Your task to perform on an android device: change the clock display to analog Image 0: 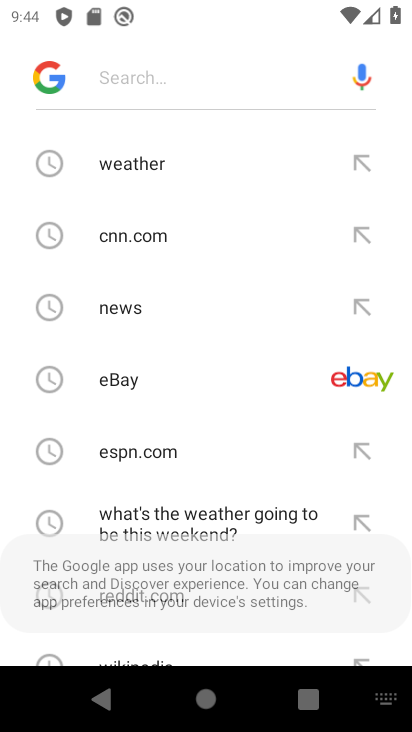
Step 0: press back button
Your task to perform on an android device: change the clock display to analog Image 1: 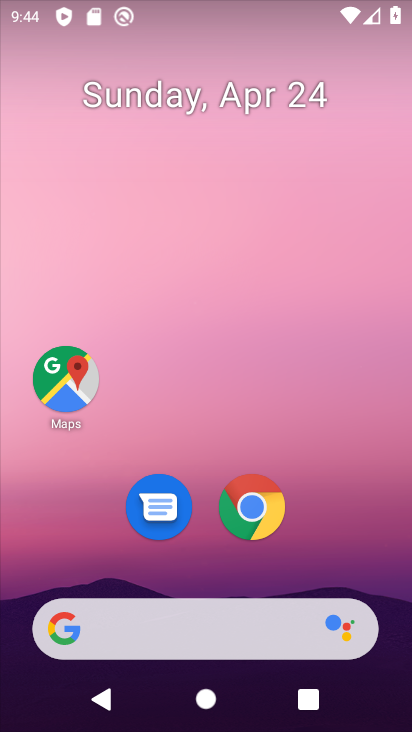
Step 1: drag from (187, 493) to (328, 94)
Your task to perform on an android device: change the clock display to analog Image 2: 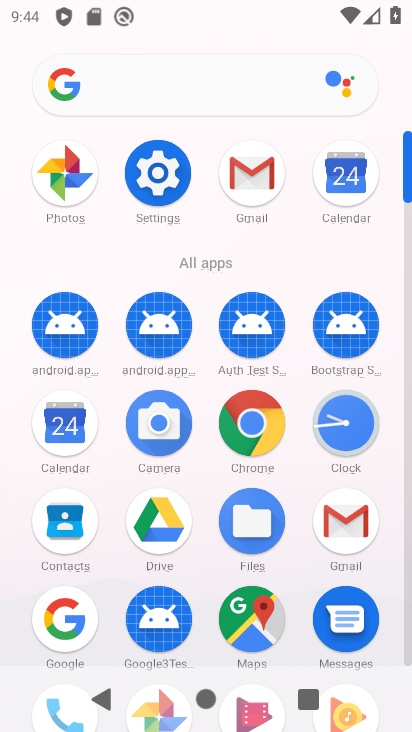
Step 2: click (340, 420)
Your task to perform on an android device: change the clock display to analog Image 3: 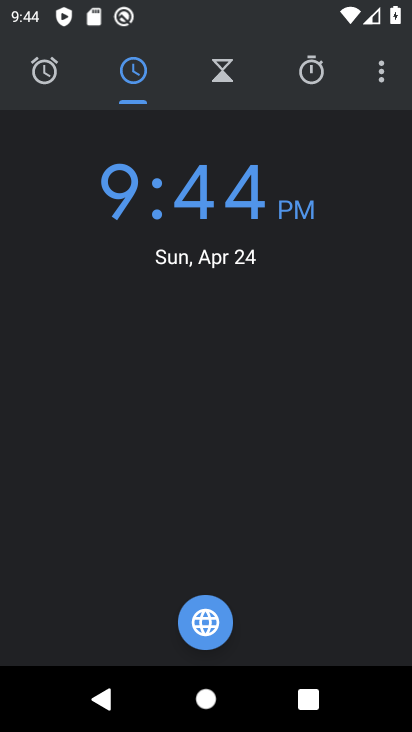
Step 3: click (385, 81)
Your task to perform on an android device: change the clock display to analog Image 4: 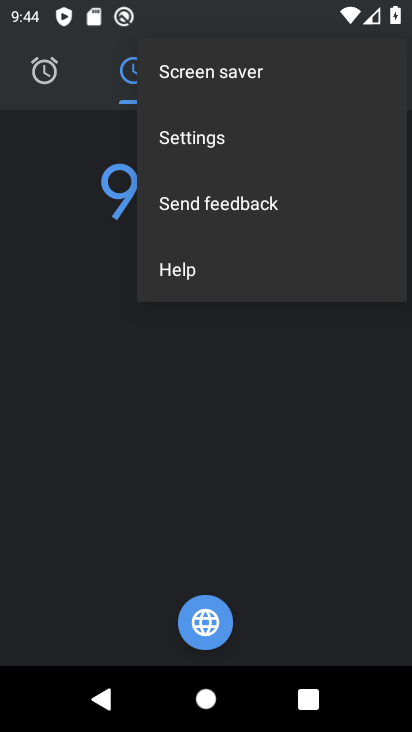
Step 4: click (332, 142)
Your task to perform on an android device: change the clock display to analog Image 5: 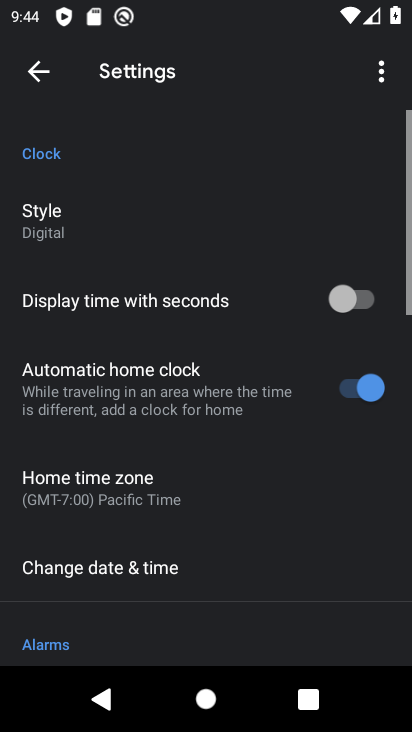
Step 5: click (133, 224)
Your task to perform on an android device: change the clock display to analog Image 6: 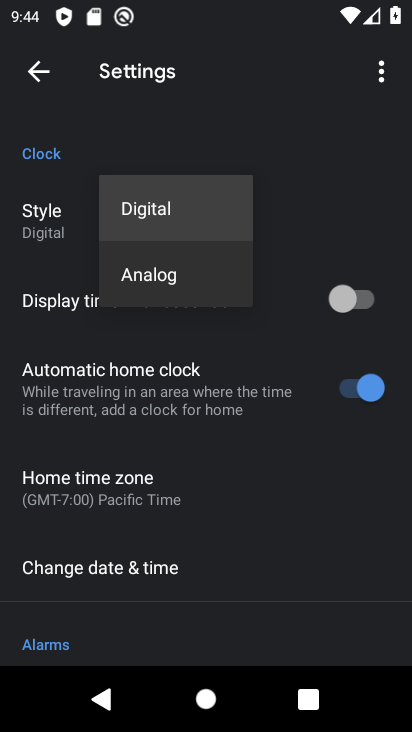
Step 6: click (175, 276)
Your task to perform on an android device: change the clock display to analog Image 7: 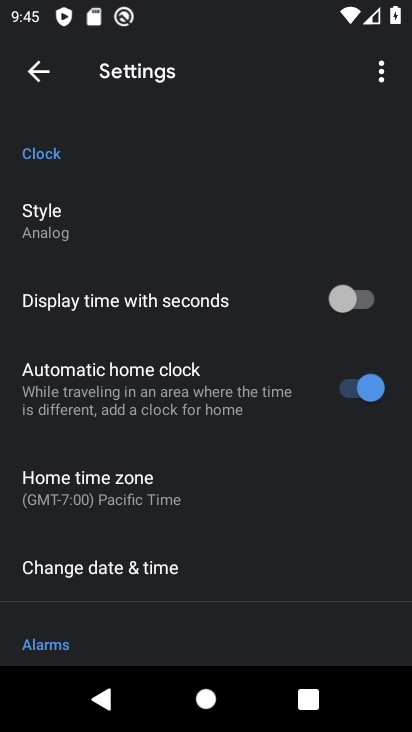
Step 7: task complete